Your task to perform on an android device: Go to Google maps Image 0: 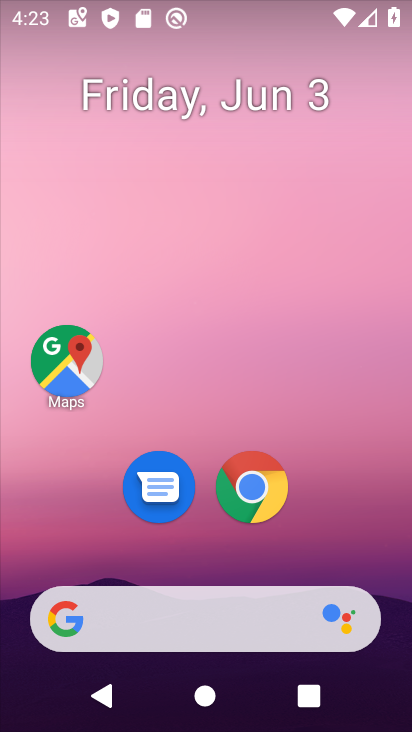
Step 0: click (285, 50)
Your task to perform on an android device: Go to Google maps Image 1: 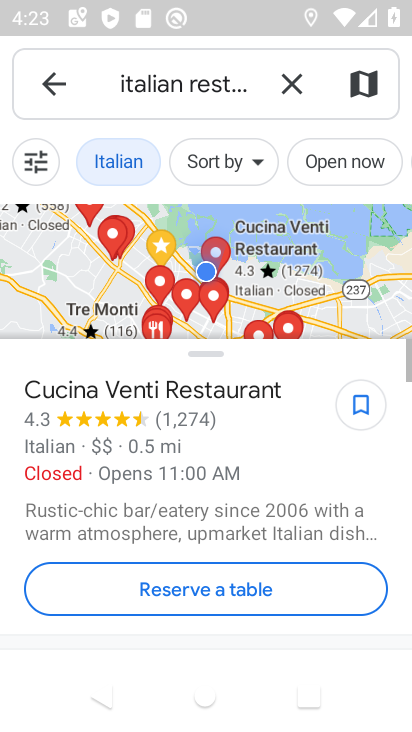
Step 1: task complete